Your task to perform on an android device: turn on wifi Image 0: 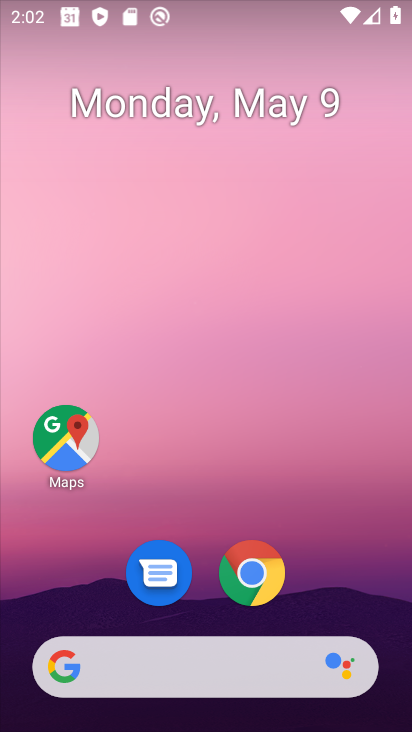
Step 0: click (143, 160)
Your task to perform on an android device: turn on wifi Image 1: 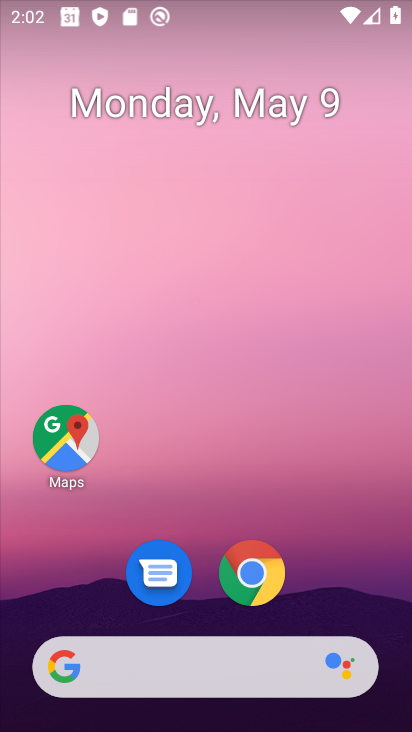
Step 1: click (149, 16)
Your task to perform on an android device: turn on wifi Image 2: 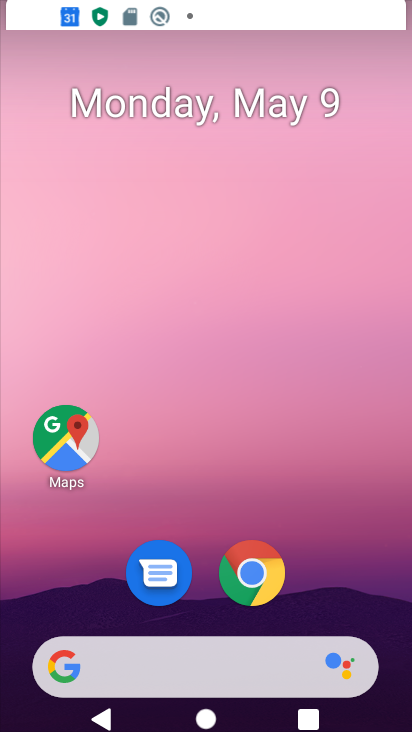
Step 2: drag from (128, 202) to (60, 16)
Your task to perform on an android device: turn on wifi Image 3: 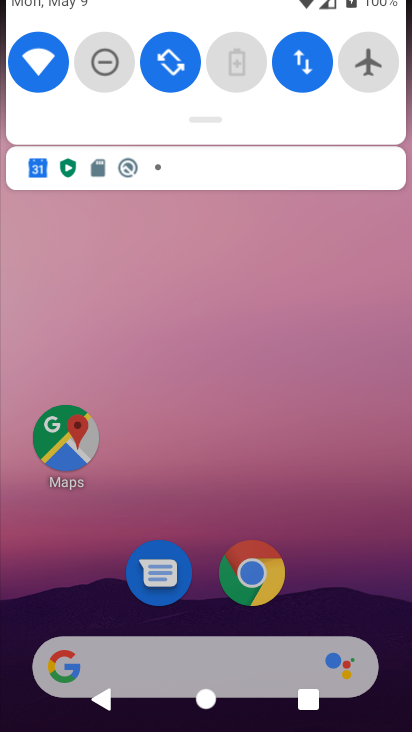
Step 3: click (120, 1)
Your task to perform on an android device: turn on wifi Image 4: 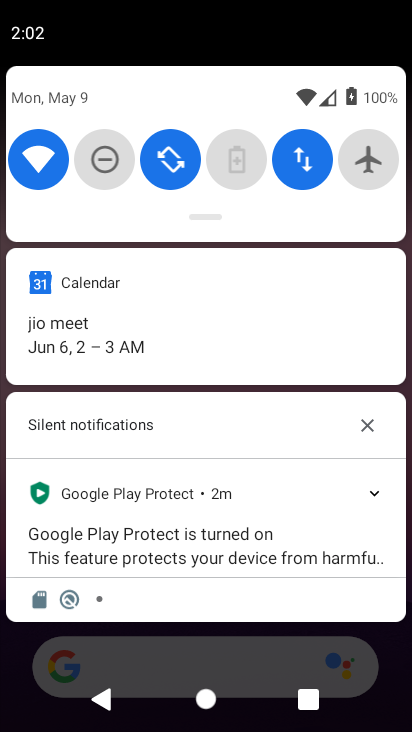
Step 4: drag from (233, 432) to (112, 36)
Your task to perform on an android device: turn on wifi Image 5: 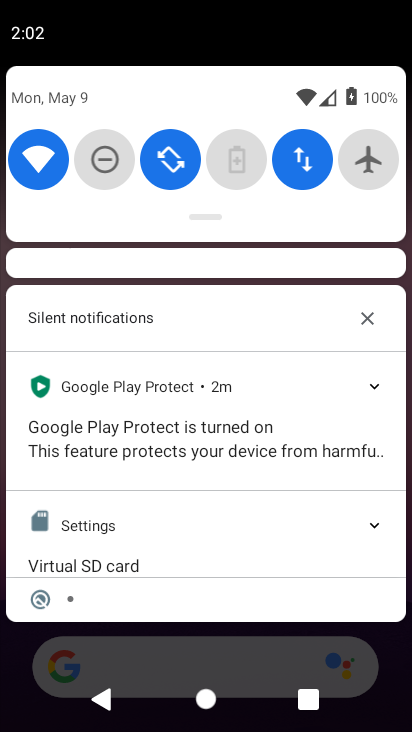
Step 5: drag from (309, 477) to (229, 59)
Your task to perform on an android device: turn on wifi Image 6: 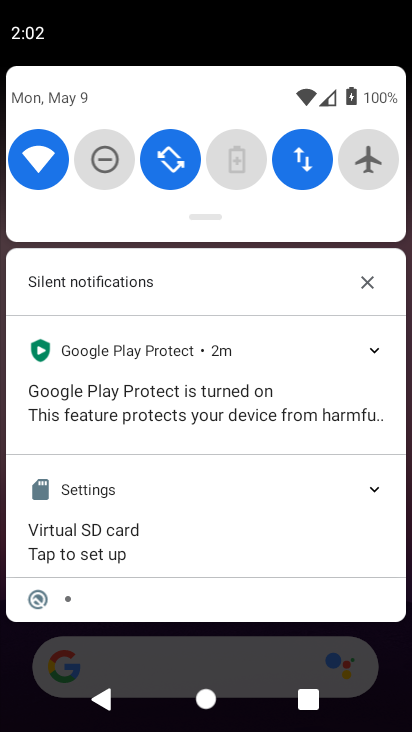
Step 6: click (397, 653)
Your task to perform on an android device: turn on wifi Image 7: 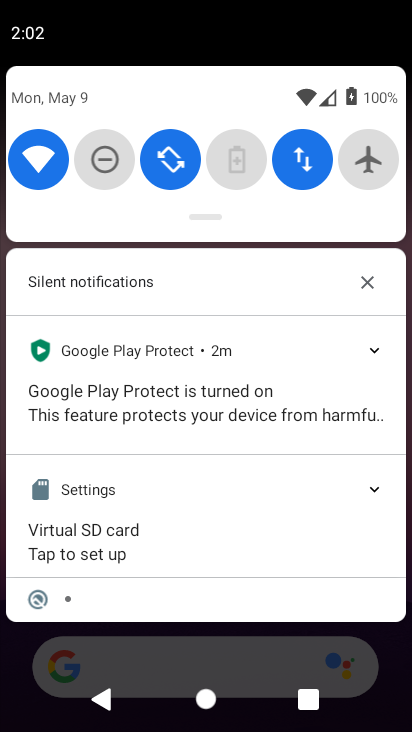
Step 7: click (376, 650)
Your task to perform on an android device: turn on wifi Image 8: 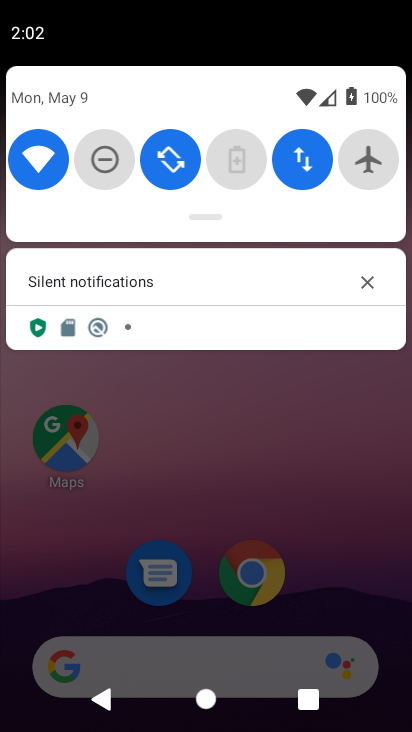
Step 8: click (378, 639)
Your task to perform on an android device: turn on wifi Image 9: 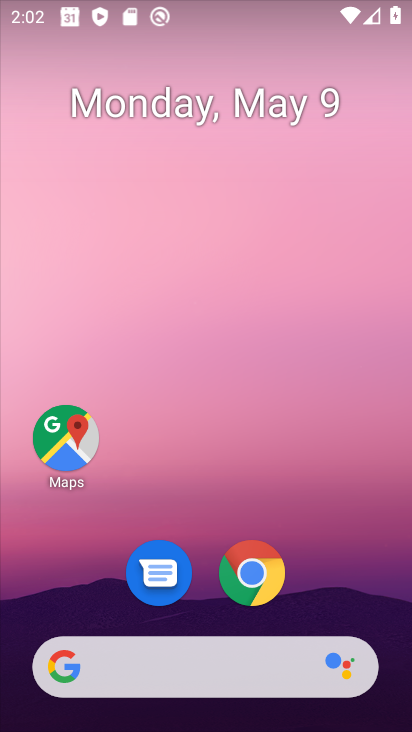
Step 9: drag from (339, 526) to (189, 50)
Your task to perform on an android device: turn on wifi Image 10: 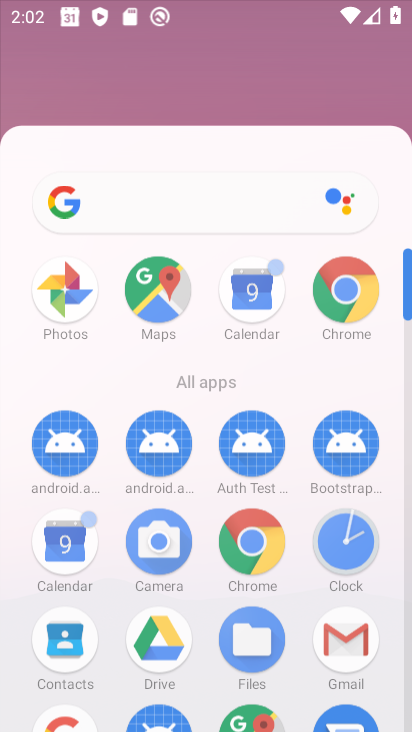
Step 10: drag from (320, 324) to (168, 69)
Your task to perform on an android device: turn on wifi Image 11: 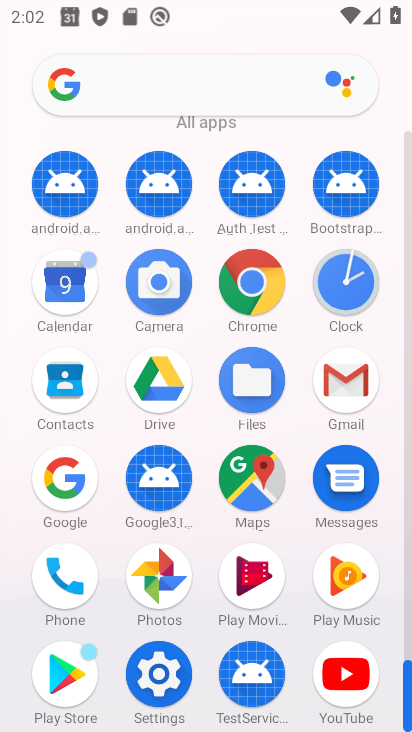
Step 11: click (152, 672)
Your task to perform on an android device: turn on wifi Image 12: 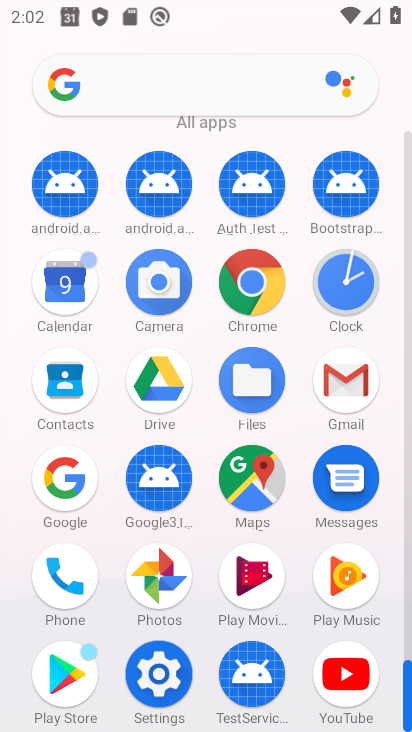
Step 12: click (153, 671)
Your task to perform on an android device: turn on wifi Image 13: 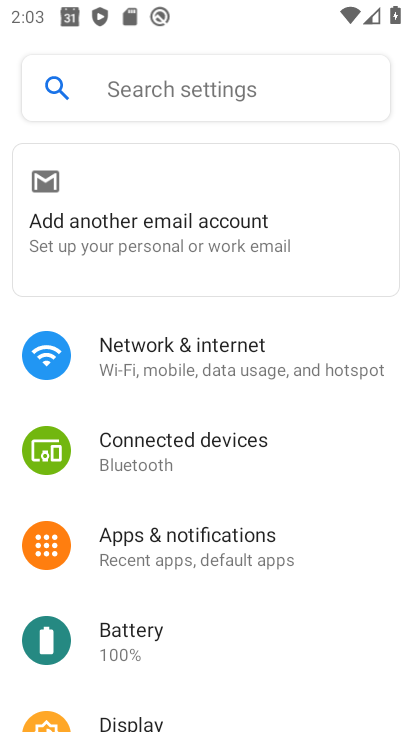
Step 13: click (194, 341)
Your task to perform on an android device: turn on wifi Image 14: 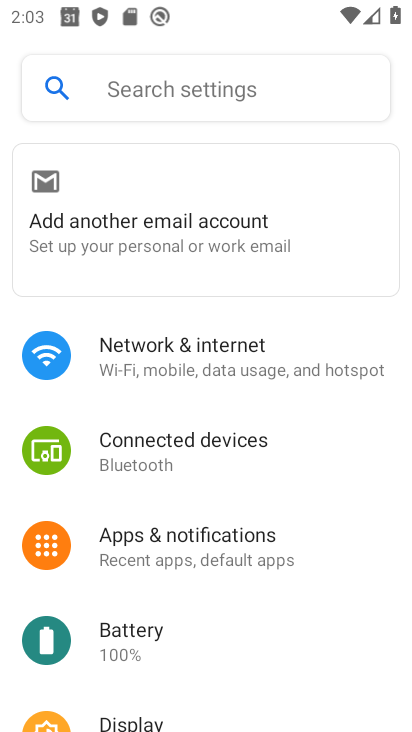
Step 14: click (195, 343)
Your task to perform on an android device: turn on wifi Image 15: 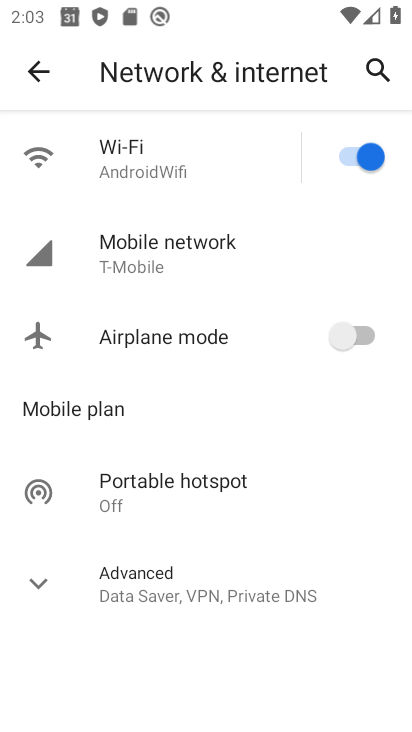
Step 15: click (185, 345)
Your task to perform on an android device: turn on wifi Image 16: 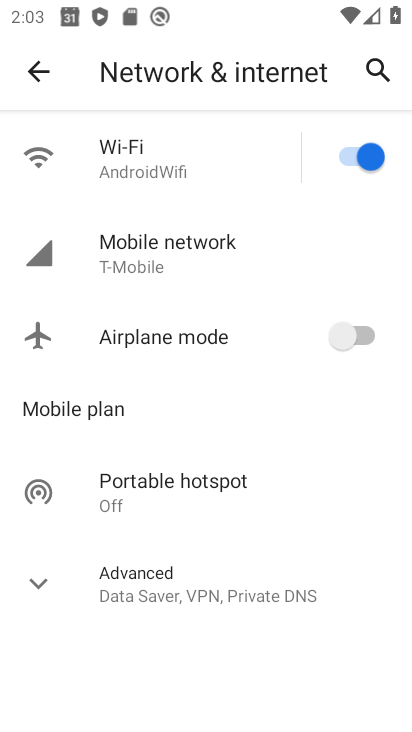
Step 16: click (162, 350)
Your task to perform on an android device: turn on wifi Image 17: 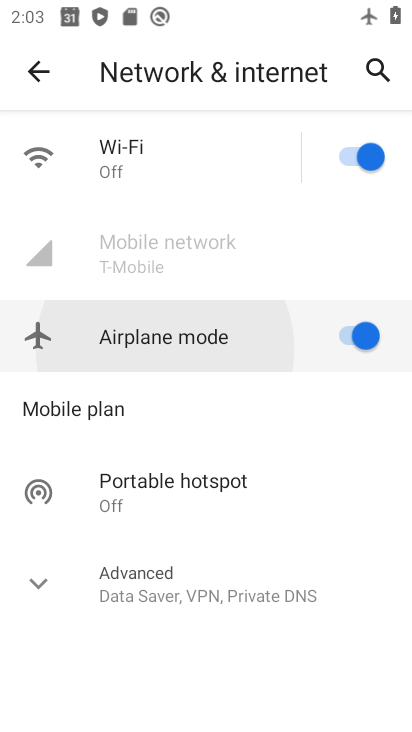
Step 17: click (151, 360)
Your task to perform on an android device: turn on wifi Image 18: 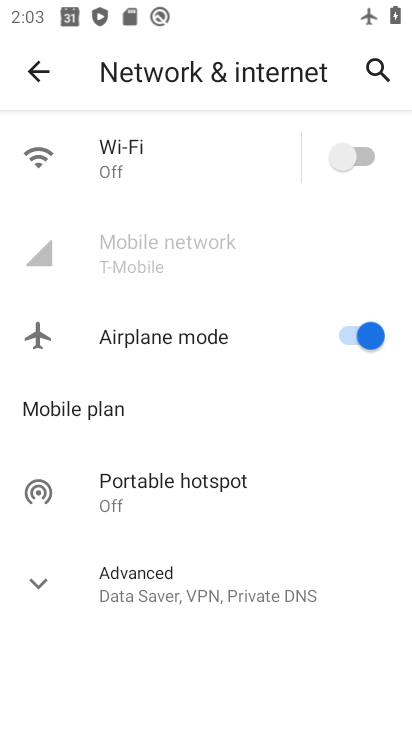
Step 18: click (332, 152)
Your task to perform on an android device: turn on wifi Image 19: 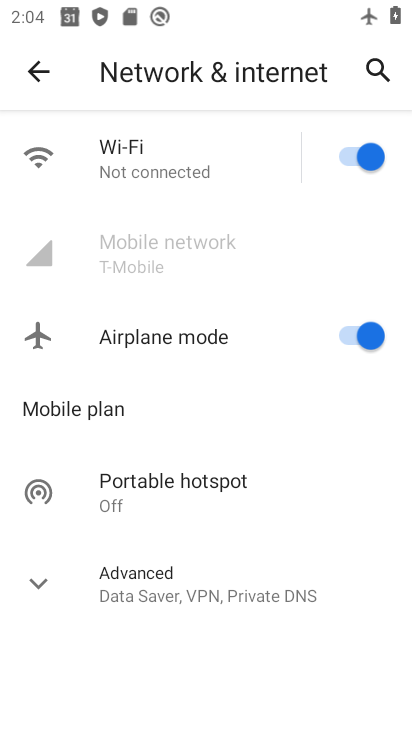
Step 19: click (379, 334)
Your task to perform on an android device: turn on wifi Image 20: 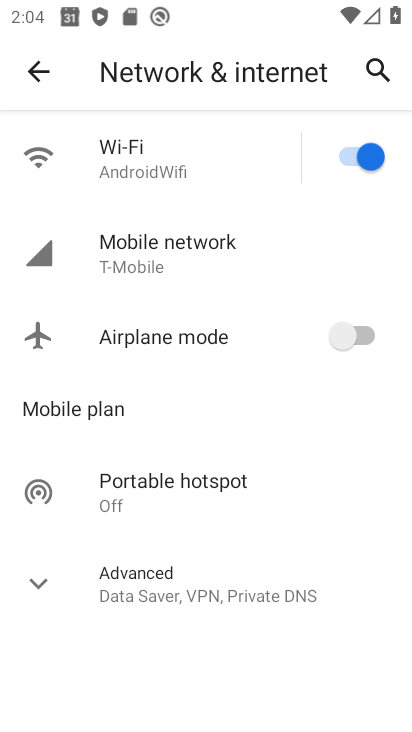
Step 20: task complete